Your task to perform on an android device: Go to Android settings Image 0: 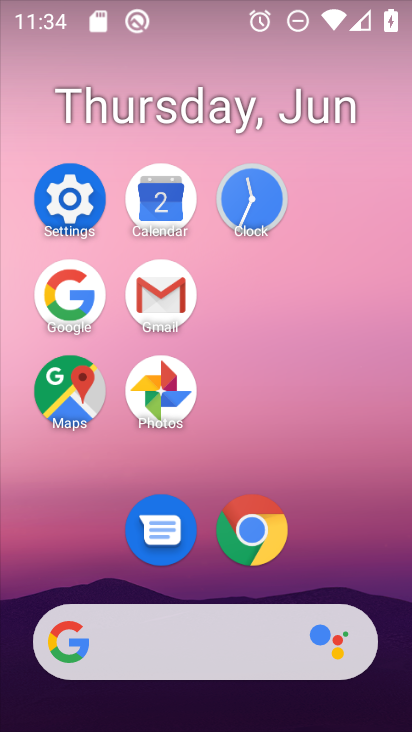
Step 0: click (60, 195)
Your task to perform on an android device: Go to Android settings Image 1: 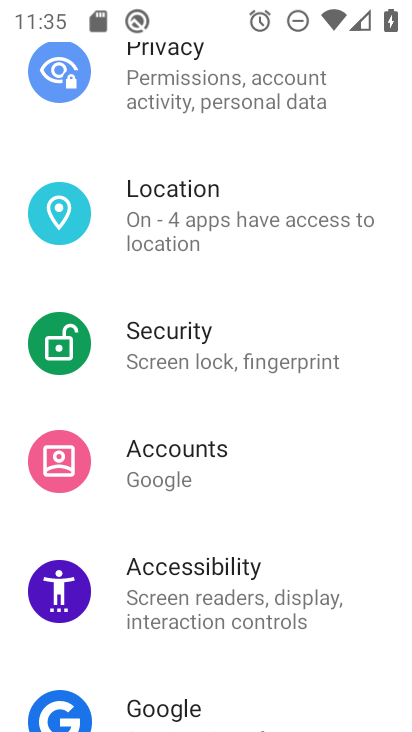
Step 1: task complete